Your task to perform on an android device: open wifi settings Image 0: 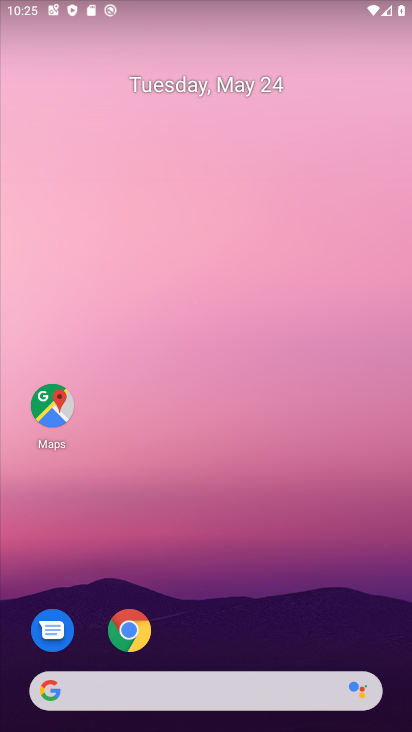
Step 0: press home button
Your task to perform on an android device: open wifi settings Image 1: 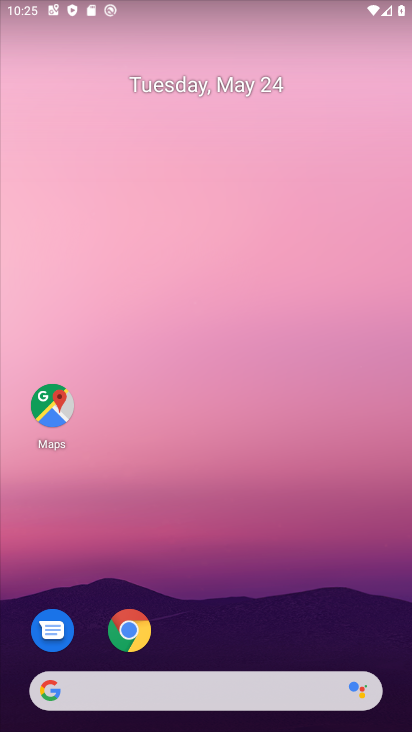
Step 1: drag from (212, 652) to (241, 78)
Your task to perform on an android device: open wifi settings Image 2: 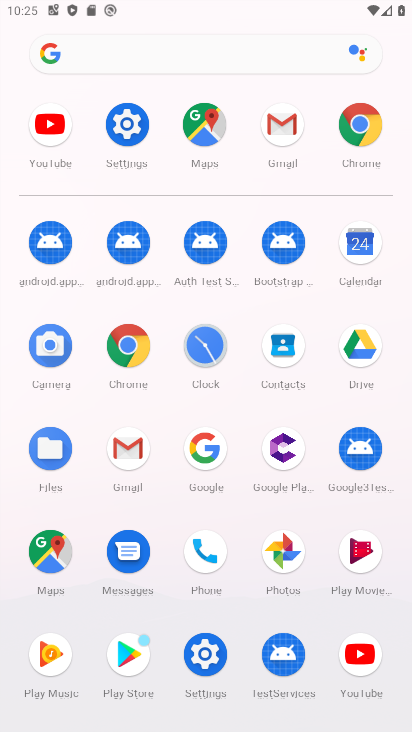
Step 2: click (125, 118)
Your task to perform on an android device: open wifi settings Image 3: 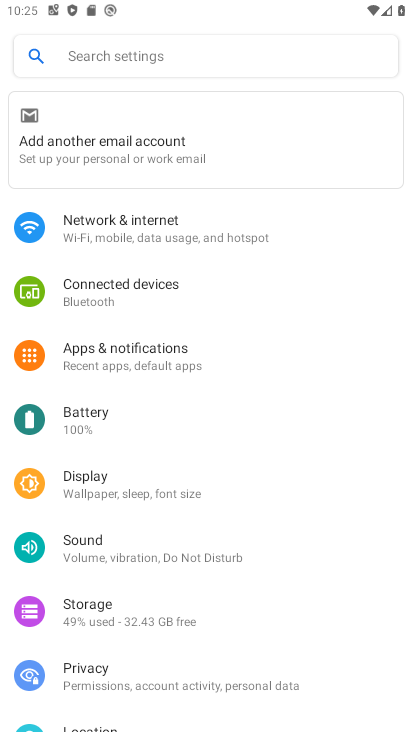
Step 3: click (139, 217)
Your task to perform on an android device: open wifi settings Image 4: 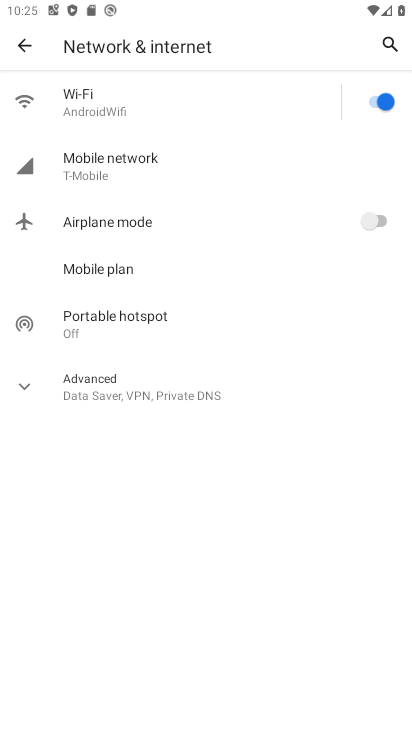
Step 4: click (144, 99)
Your task to perform on an android device: open wifi settings Image 5: 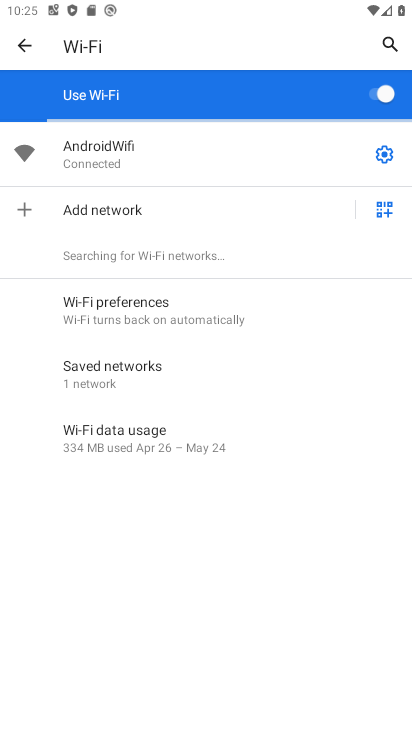
Step 5: task complete